Your task to perform on an android device: open sync settings in chrome Image 0: 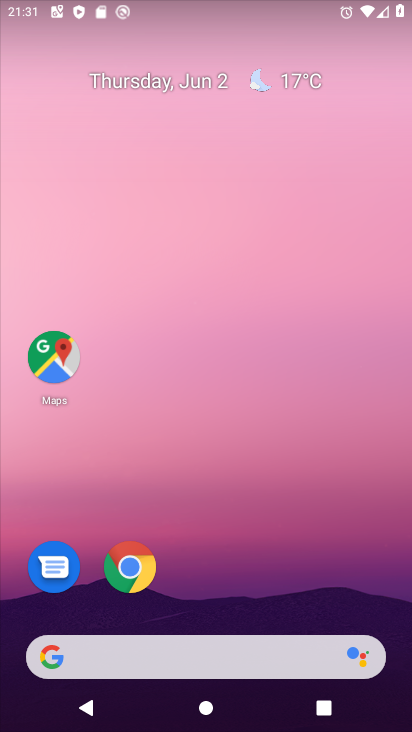
Step 0: drag from (197, 520) to (232, 176)
Your task to perform on an android device: open sync settings in chrome Image 1: 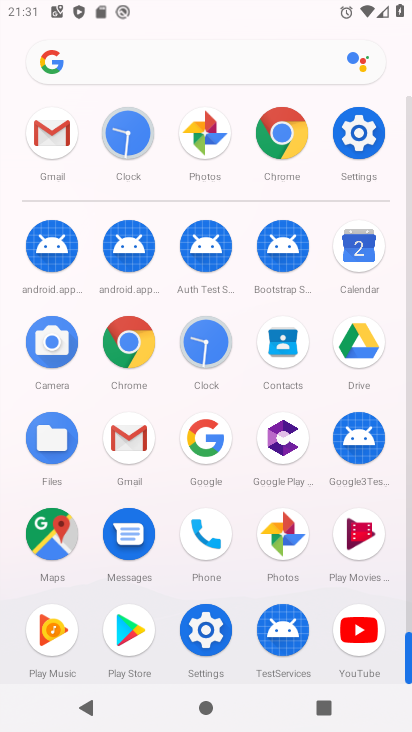
Step 1: click (129, 344)
Your task to perform on an android device: open sync settings in chrome Image 2: 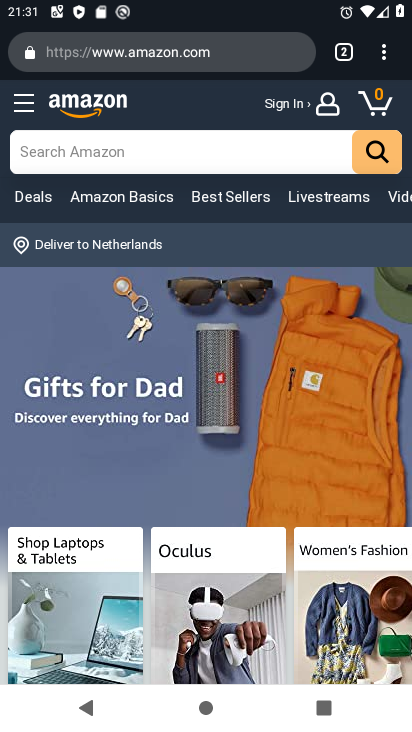
Step 2: click (372, 57)
Your task to perform on an android device: open sync settings in chrome Image 3: 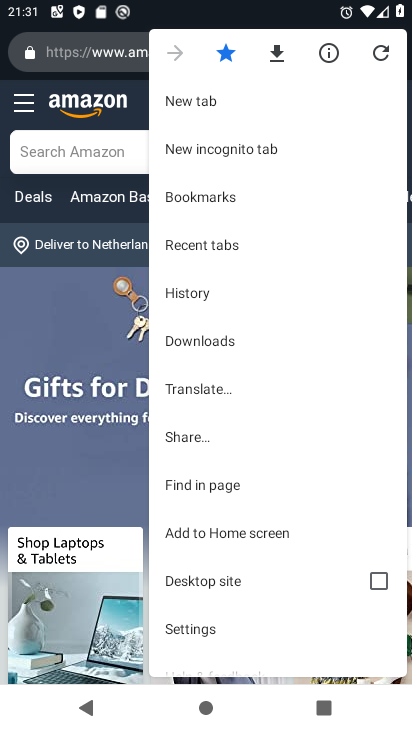
Step 3: click (197, 632)
Your task to perform on an android device: open sync settings in chrome Image 4: 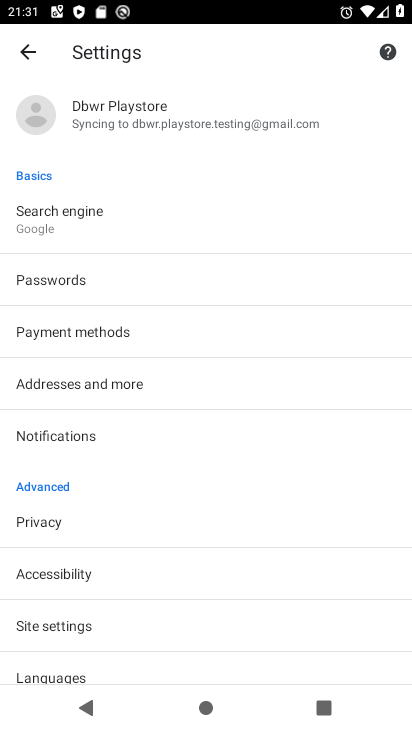
Step 4: click (167, 115)
Your task to perform on an android device: open sync settings in chrome Image 5: 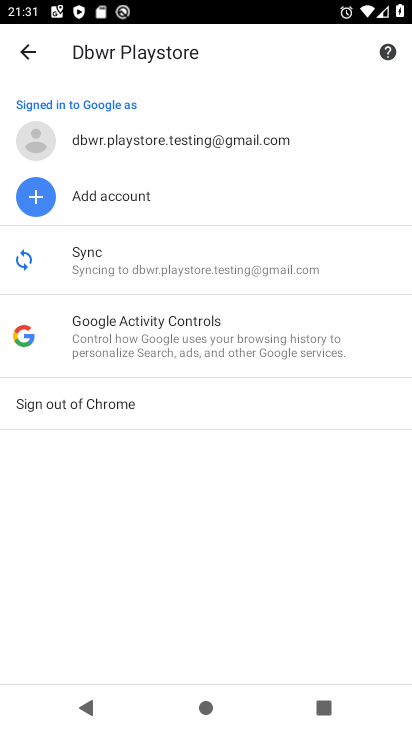
Step 5: click (192, 276)
Your task to perform on an android device: open sync settings in chrome Image 6: 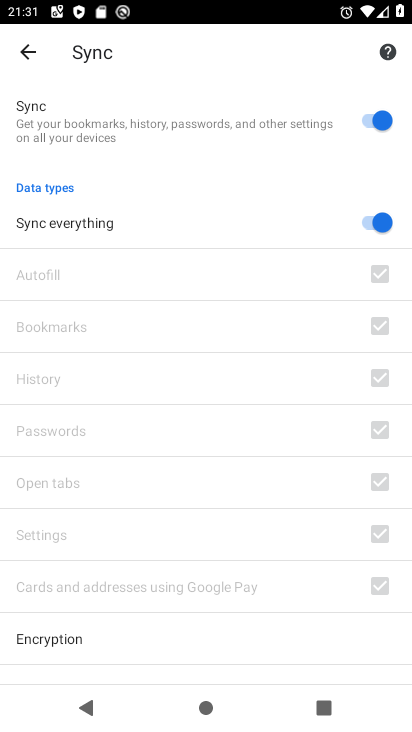
Step 6: task complete